Your task to perform on an android device: choose inbox layout in the gmail app Image 0: 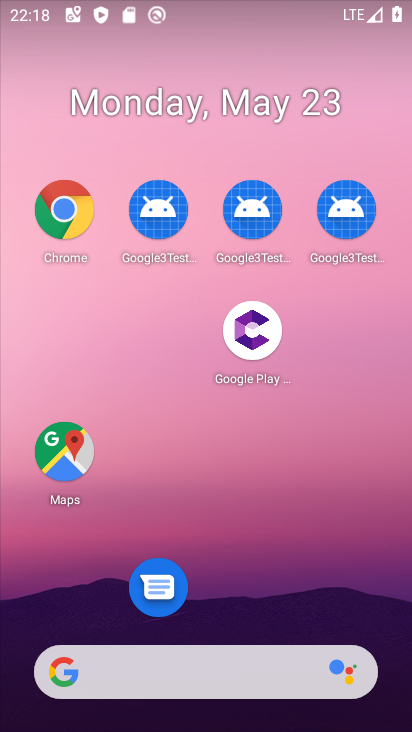
Step 0: drag from (251, 466) to (313, 17)
Your task to perform on an android device: choose inbox layout in the gmail app Image 1: 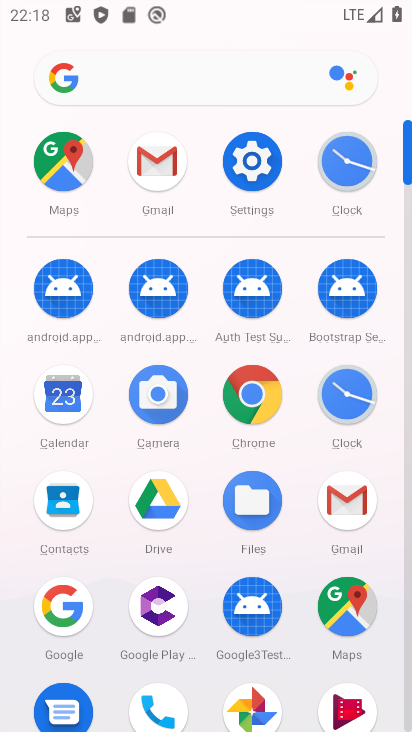
Step 1: click (136, 153)
Your task to perform on an android device: choose inbox layout in the gmail app Image 2: 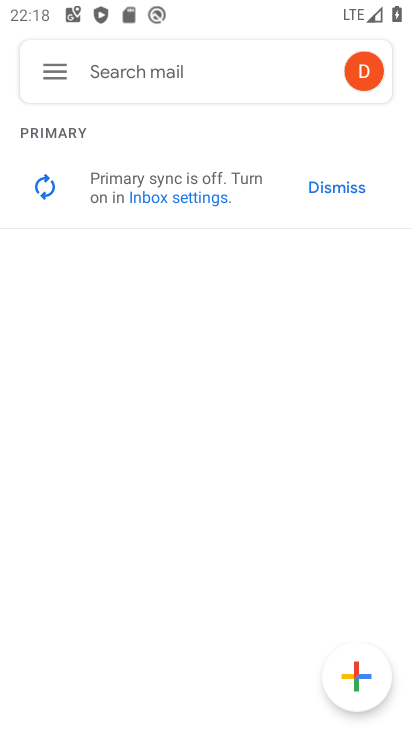
Step 2: click (62, 53)
Your task to perform on an android device: choose inbox layout in the gmail app Image 3: 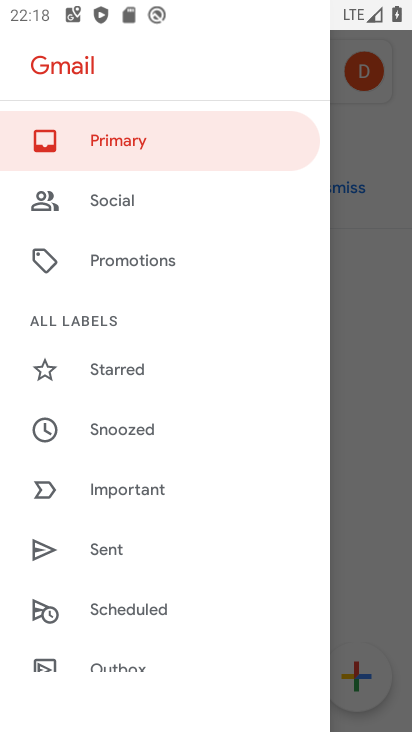
Step 3: drag from (154, 540) to (150, 184)
Your task to perform on an android device: choose inbox layout in the gmail app Image 4: 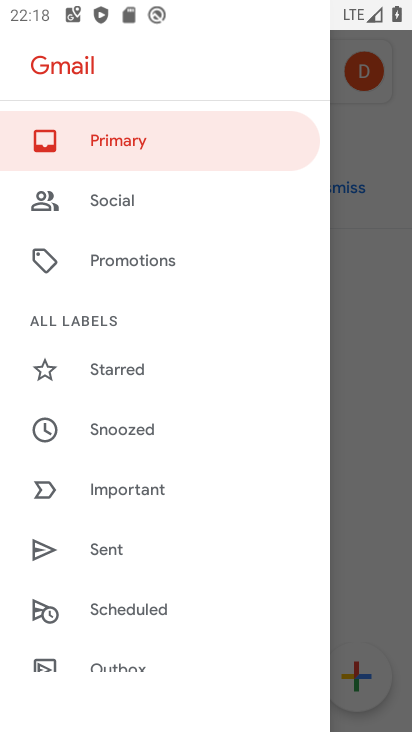
Step 4: drag from (193, 596) to (294, 176)
Your task to perform on an android device: choose inbox layout in the gmail app Image 5: 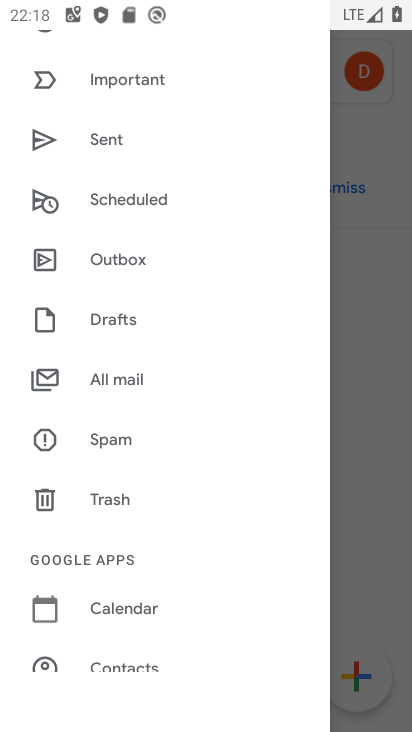
Step 5: drag from (234, 528) to (248, 199)
Your task to perform on an android device: choose inbox layout in the gmail app Image 6: 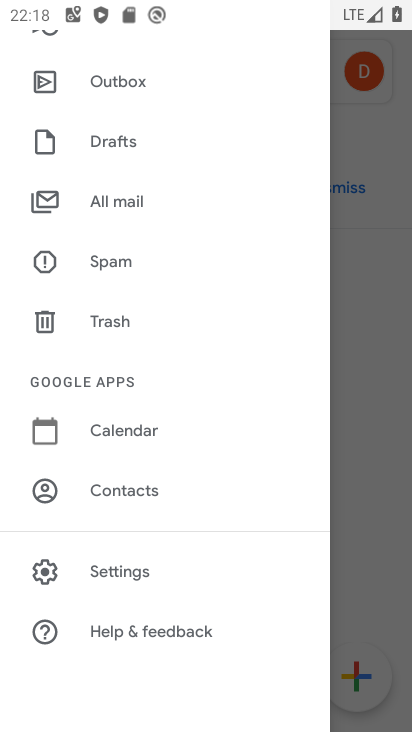
Step 6: drag from (176, 156) to (136, 565)
Your task to perform on an android device: choose inbox layout in the gmail app Image 7: 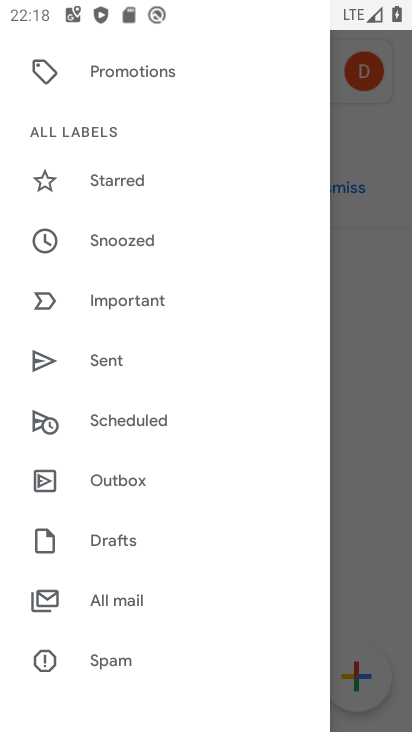
Step 7: drag from (173, 130) to (160, 472)
Your task to perform on an android device: choose inbox layout in the gmail app Image 8: 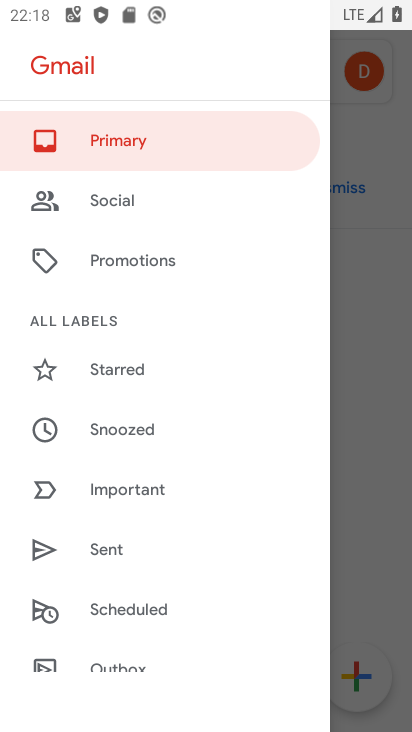
Step 8: drag from (187, 575) to (243, 50)
Your task to perform on an android device: choose inbox layout in the gmail app Image 9: 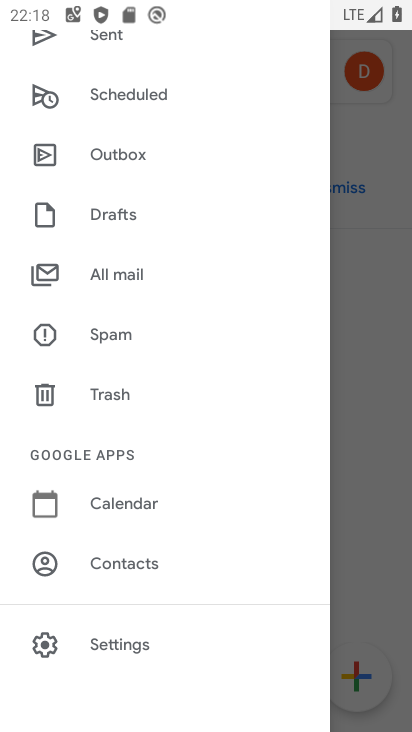
Step 9: click (117, 638)
Your task to perform on an android device: choose inbox layout in the gmail app Image 10: 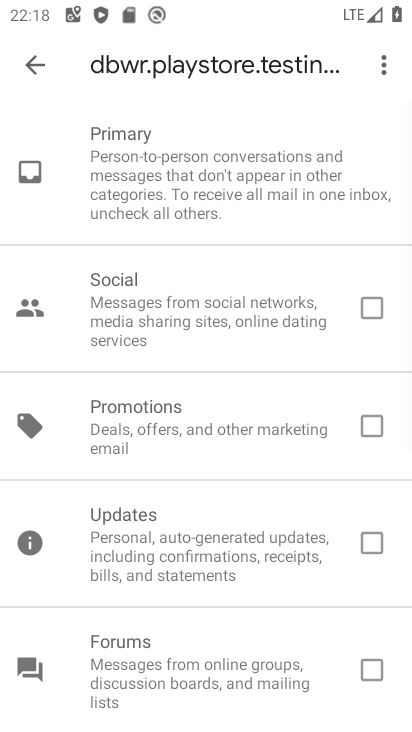
Step 10: task complete